Your task to perform on an android device: Open Youtube and go to "Your channel" Image 0: 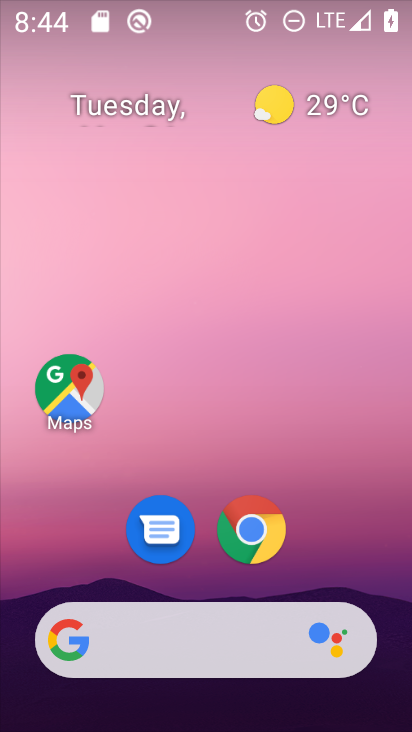
Step 0: drag from (395, 619) to (225, 44)
Your task to perform on an android device: Open Youtube and go to "Your channel" Image 1: 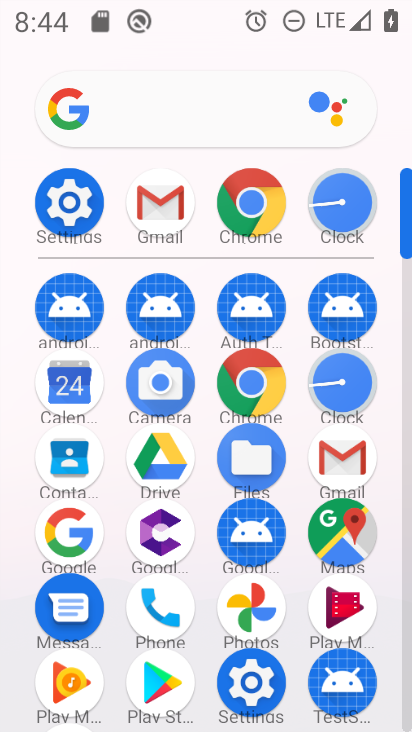
Step 1: drag from (292, 677) to (245, 192)
Your task to perform on an android device: Open Youtube and go to "Your channel" Image 2: 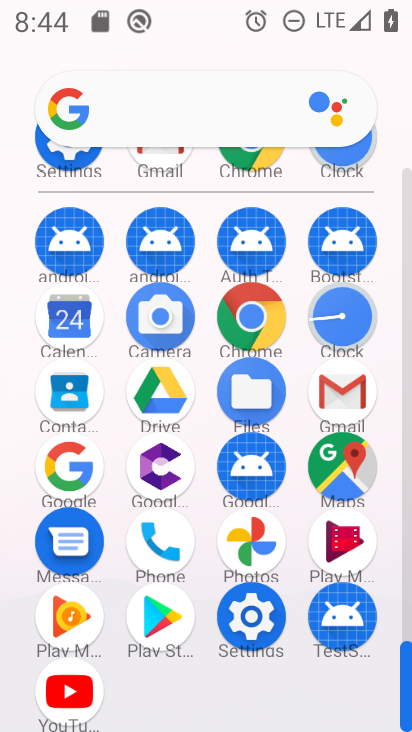
Step 2: click (66, 691)
Your task to perform on an android device: Open Youtube and go to "Your channel" Image 3: 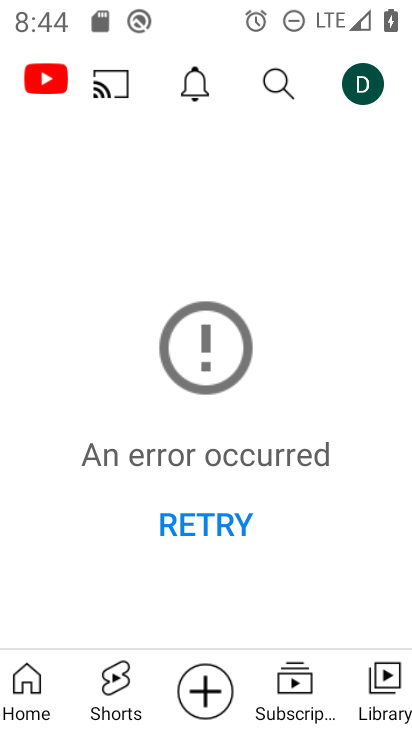
Step 3: click (207, 524)
Your task to perform on an android device: Open Youtube and go to "Your channel" Image 4: 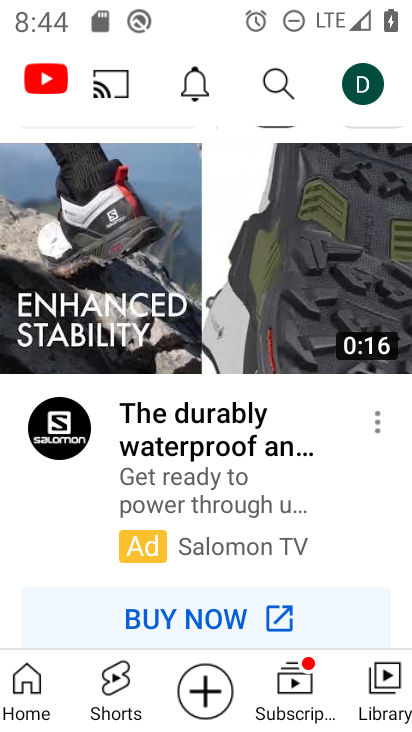
Step 4: click (366, 84)
Your task to perform on an android device: Open Youtube and go to "Your channel" Image 5: 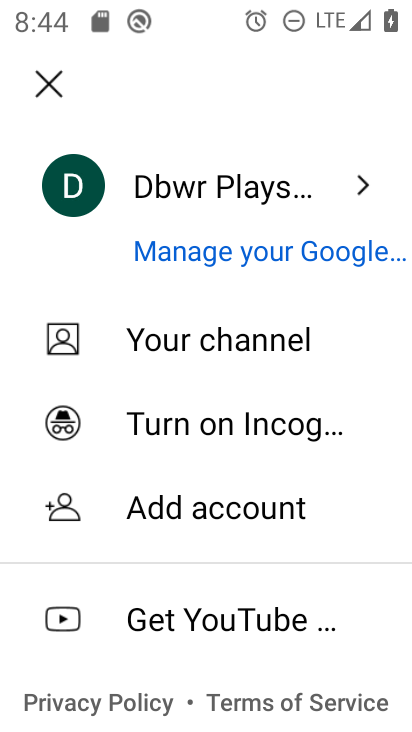
Step 5: click (246, 342)
Your task to perform on an android device: Open Youtube and go to "Your channel" Image 6: 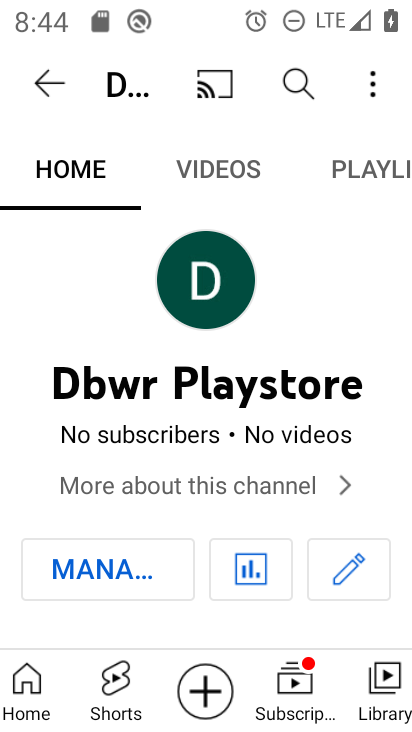
Step 6: task complete